Your task to perform on an android device: Search for the most popular books on Goodreads Image 0: 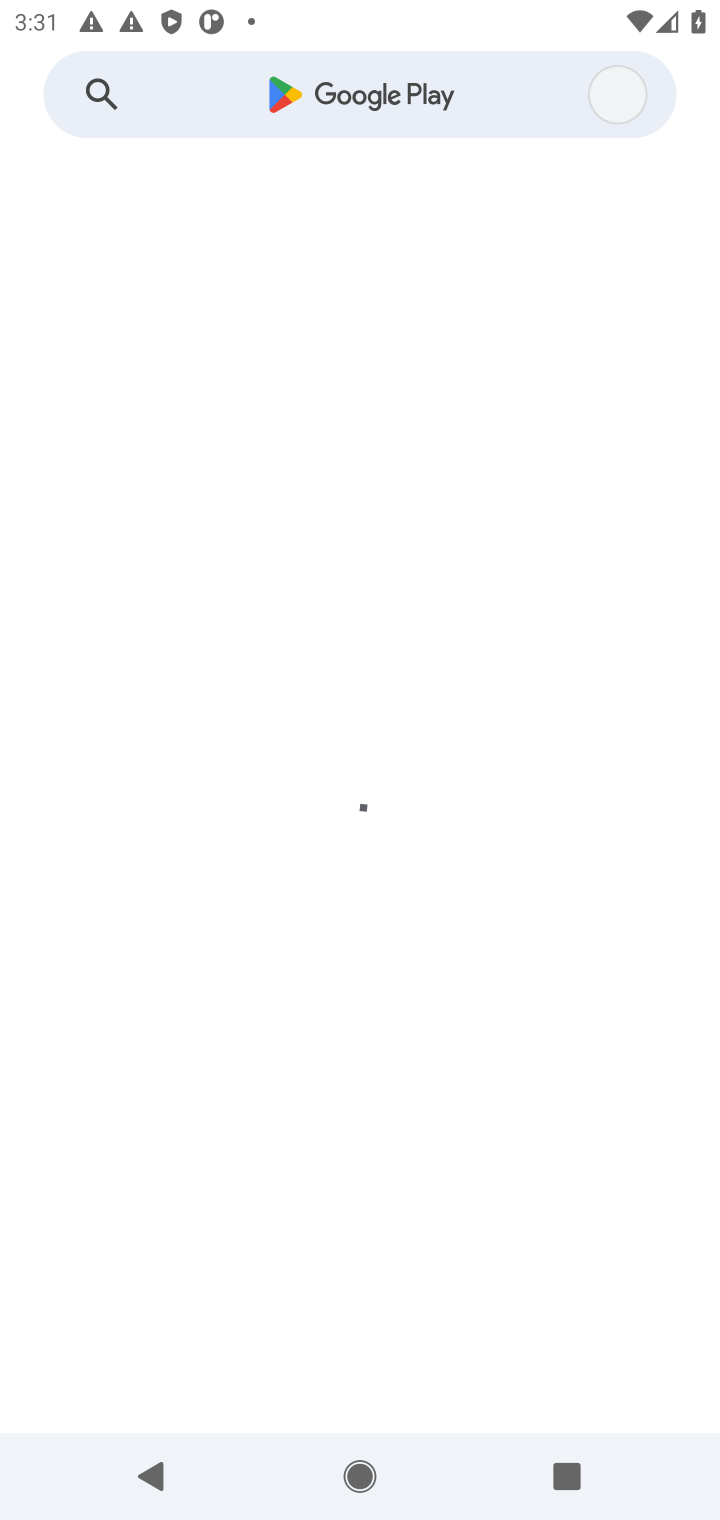
Step 0: press home button
Your task to perform on an android device: Search for the most popular books on Goodreads Image 1: 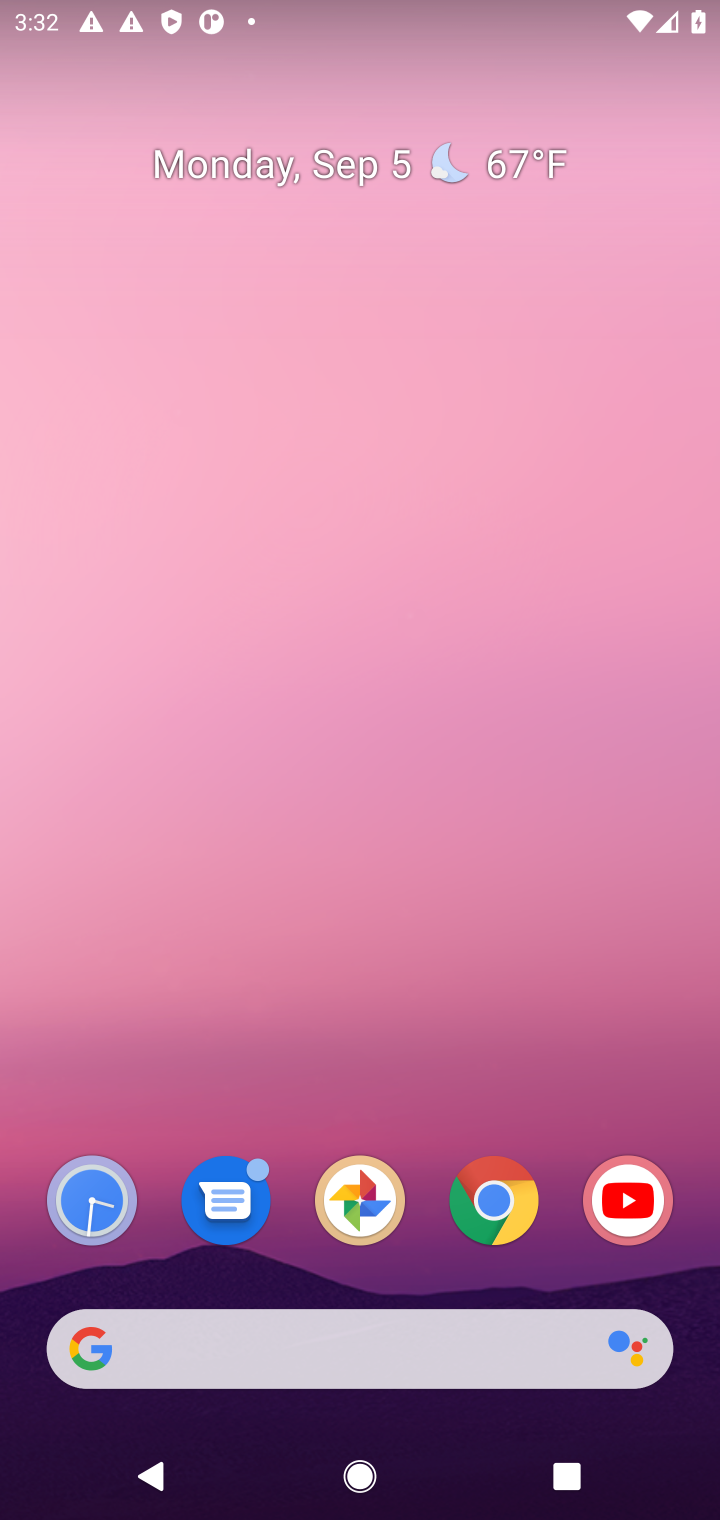
Step 1: click (281, 342)
Your task to perform on an android device: Search for the most popular books on Goodreads Image 2: 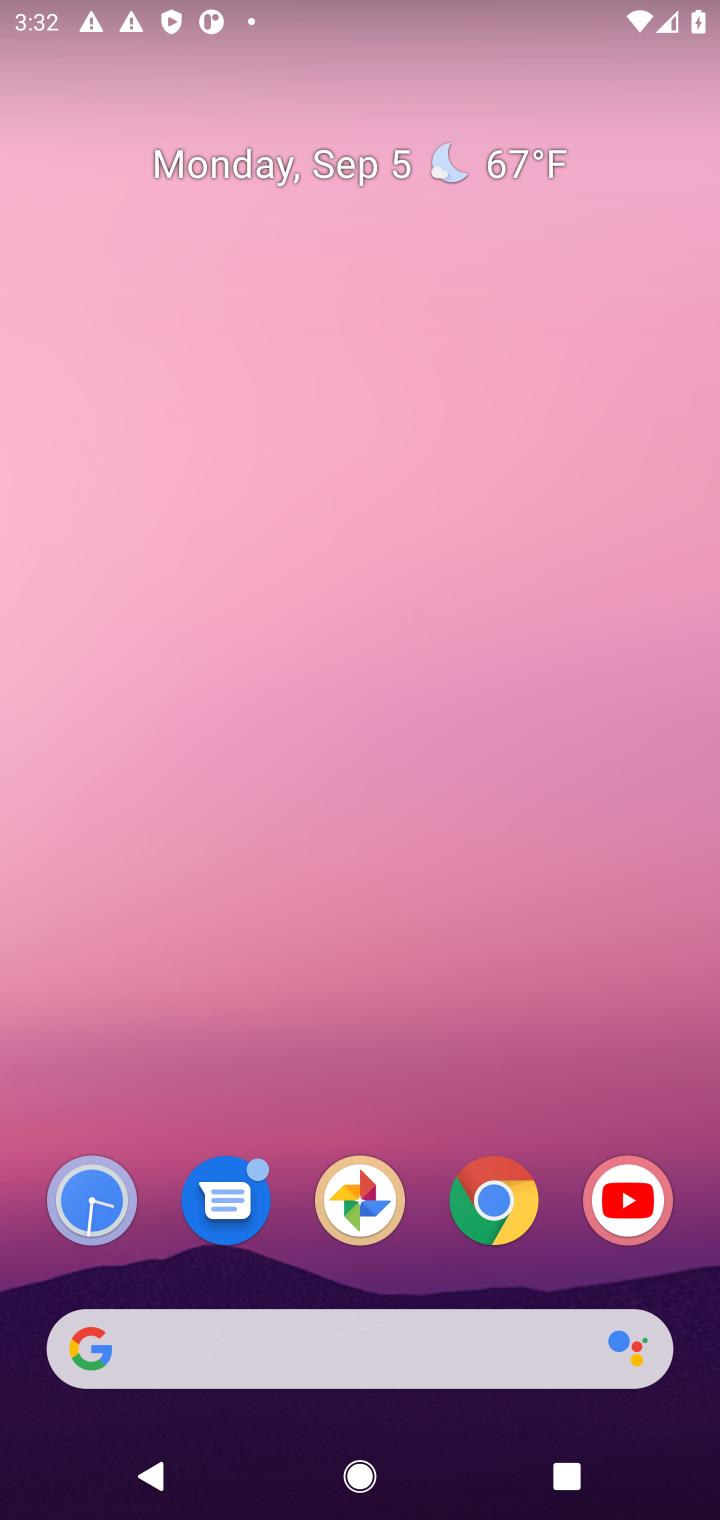
Step 2: click (493, 1192)
Your task to perform on an android device: Search for the most popular books on Goodreads Image 3: 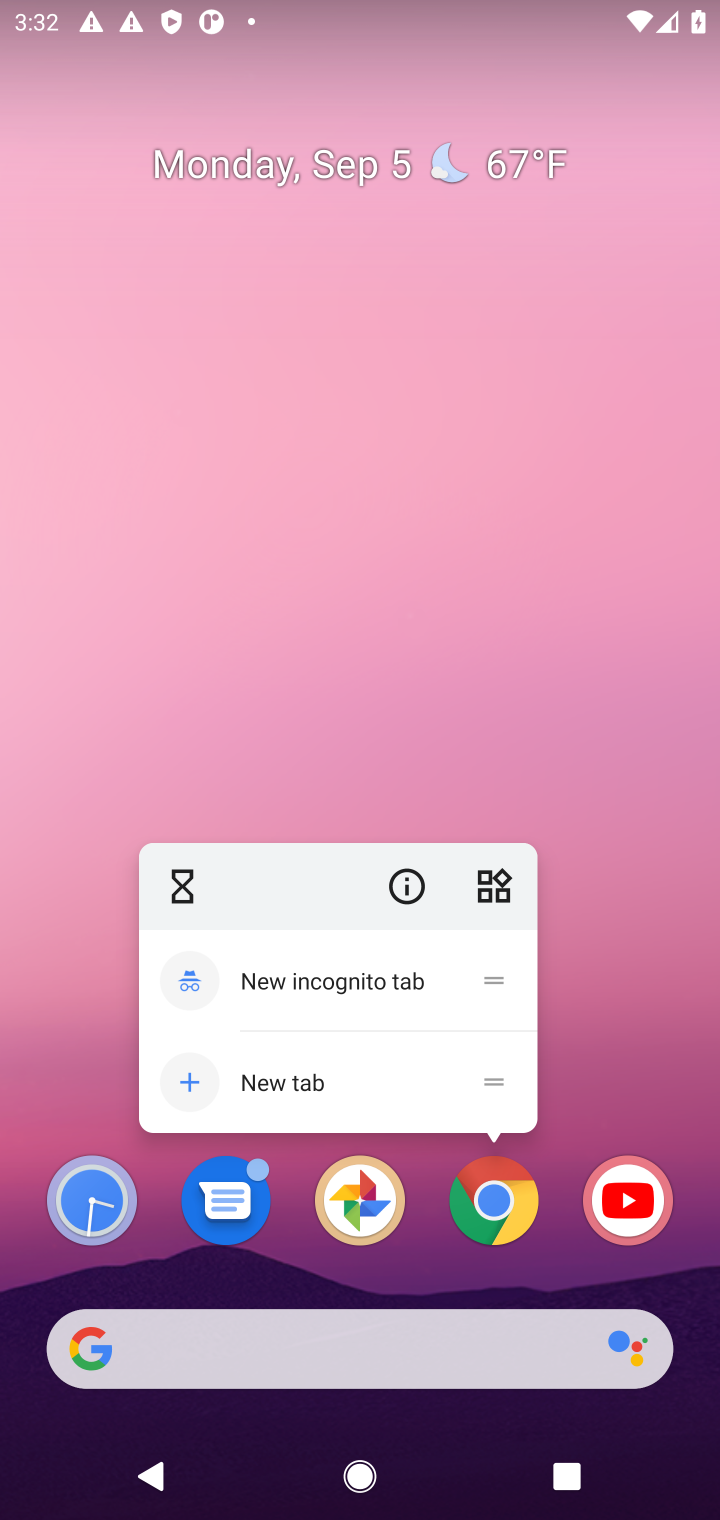
Step 3: click (480, 1197)
Your task to perform on an android device: Search for the most popular books on Goodreads Image 4: 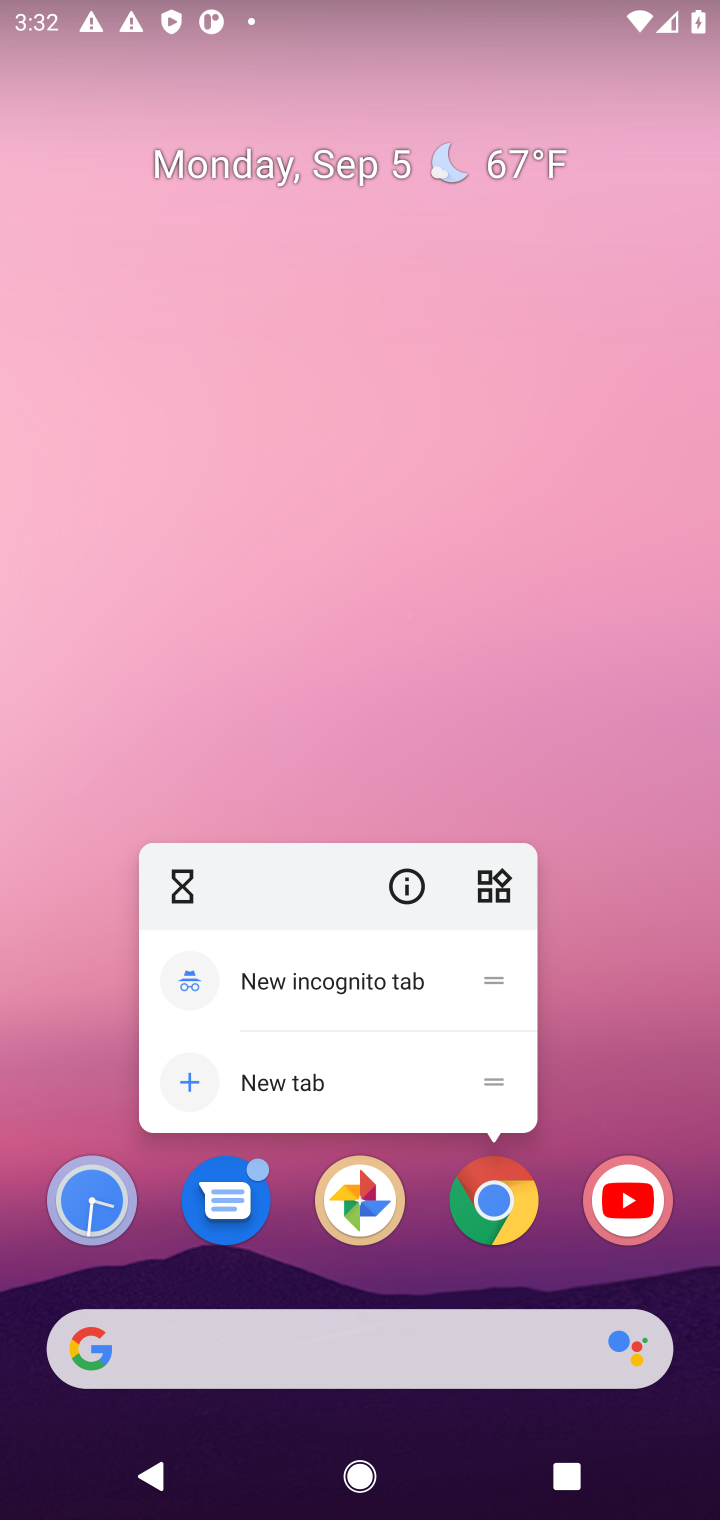
Step 4: click (480, 1197)
Your task to perform on an android device: Search for the most popular books on Goodreads Image 5: 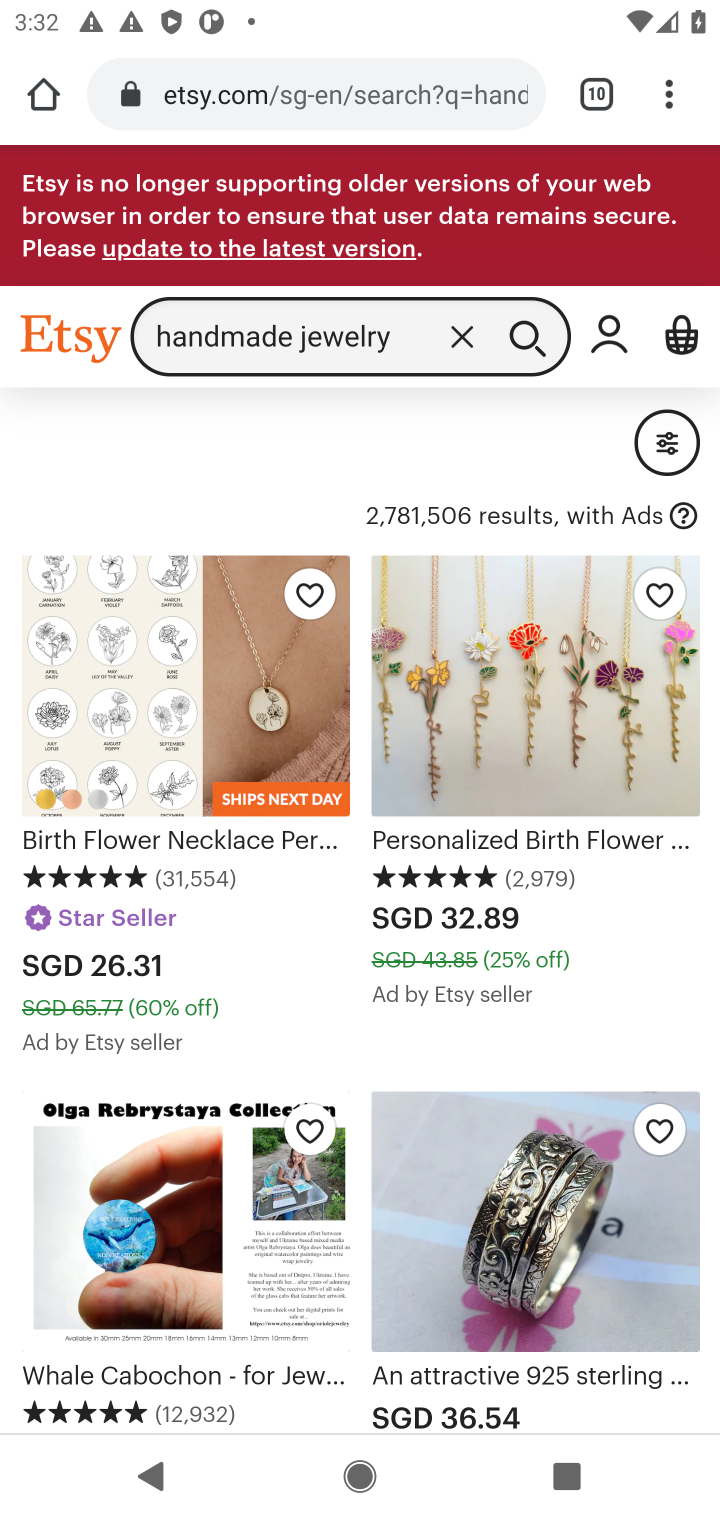
Step 5: click (45, 87)
Your task to perform on an android device: Search for the most popular books on Goodreads Image 6: 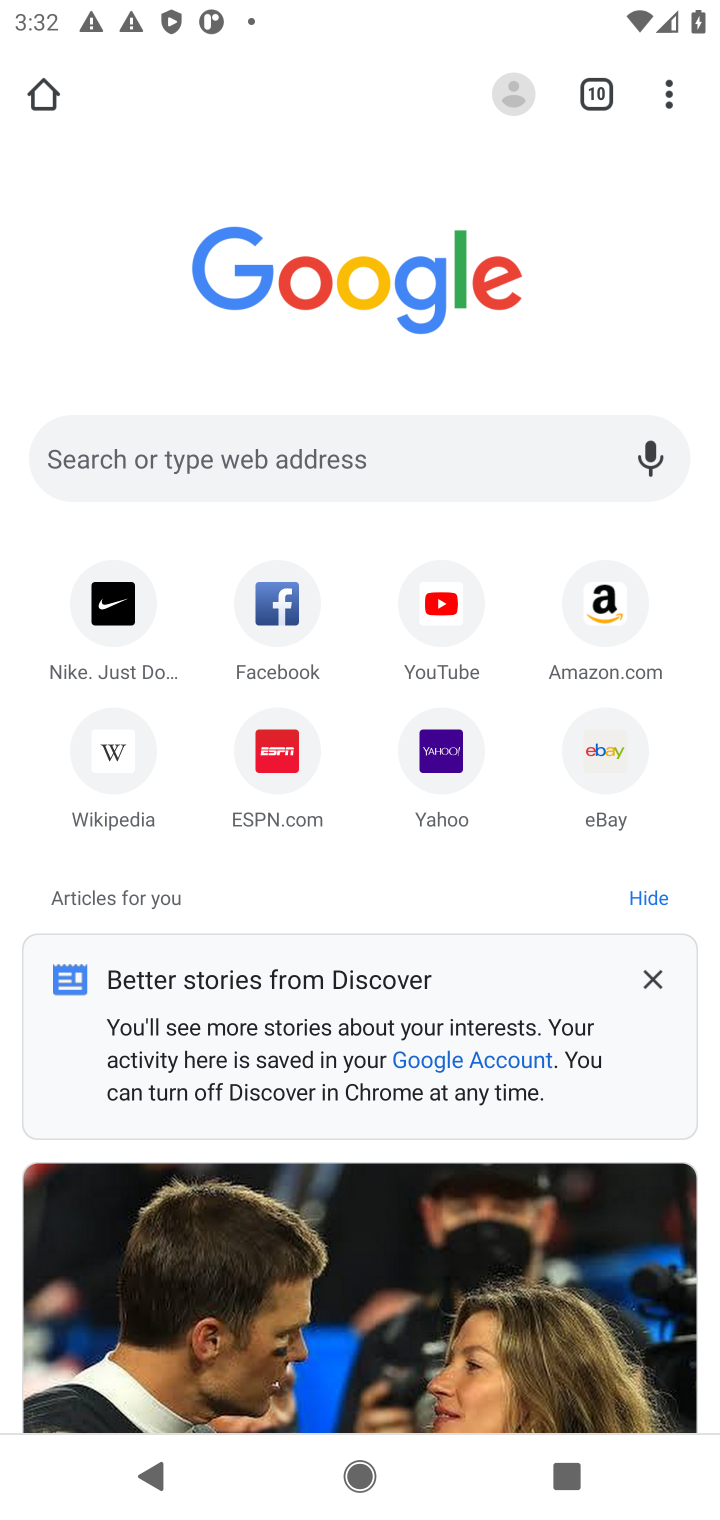
Step 6: click (159, 443)
Your task to perform on an android device: Search for the most popular books on Goodreads Image 7: 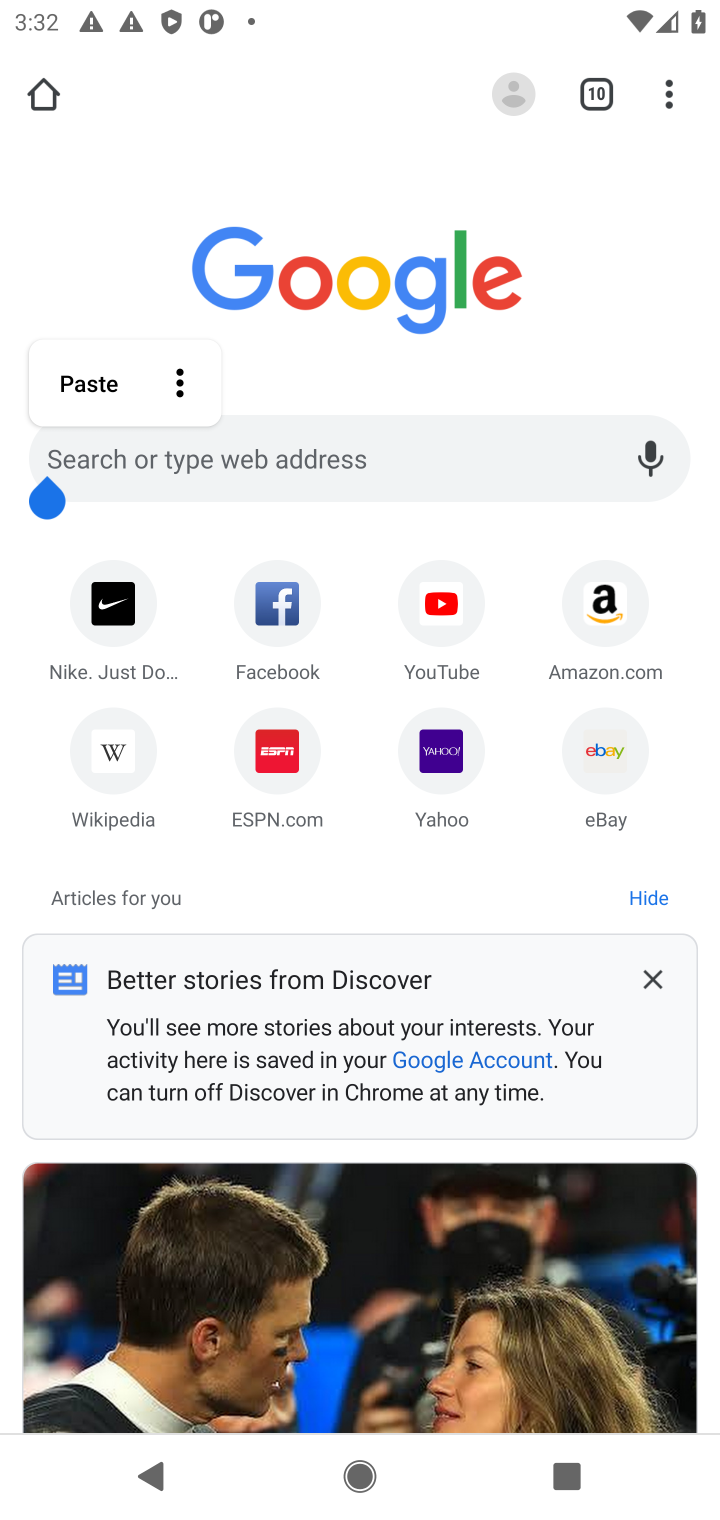
Step 7: click (267, 458)
Your task to perform on an android device: Search for the most popular books on Goodreads Image 8: 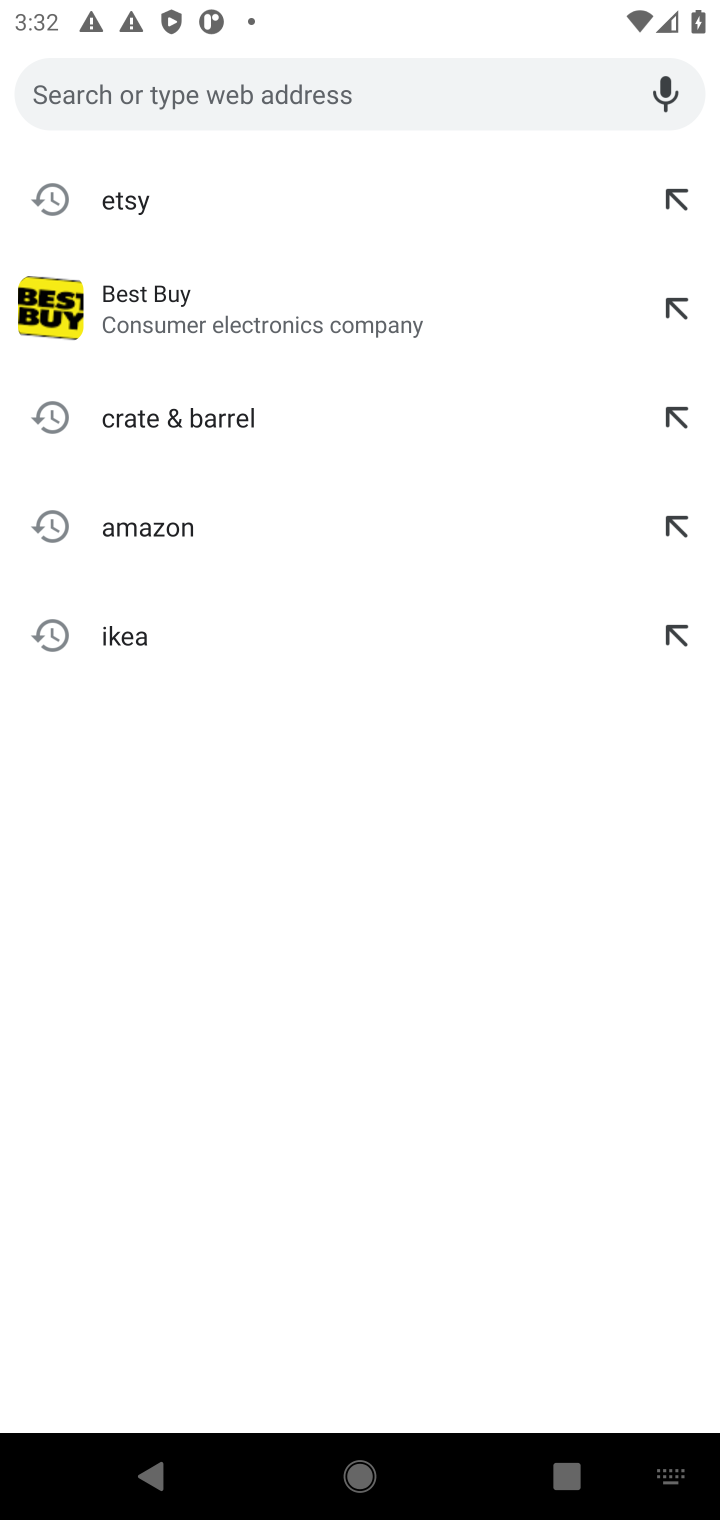
Step 8: type "goodreads"
Your task to perform on an android device: Search for the most popular books on Goodreads Image 9: 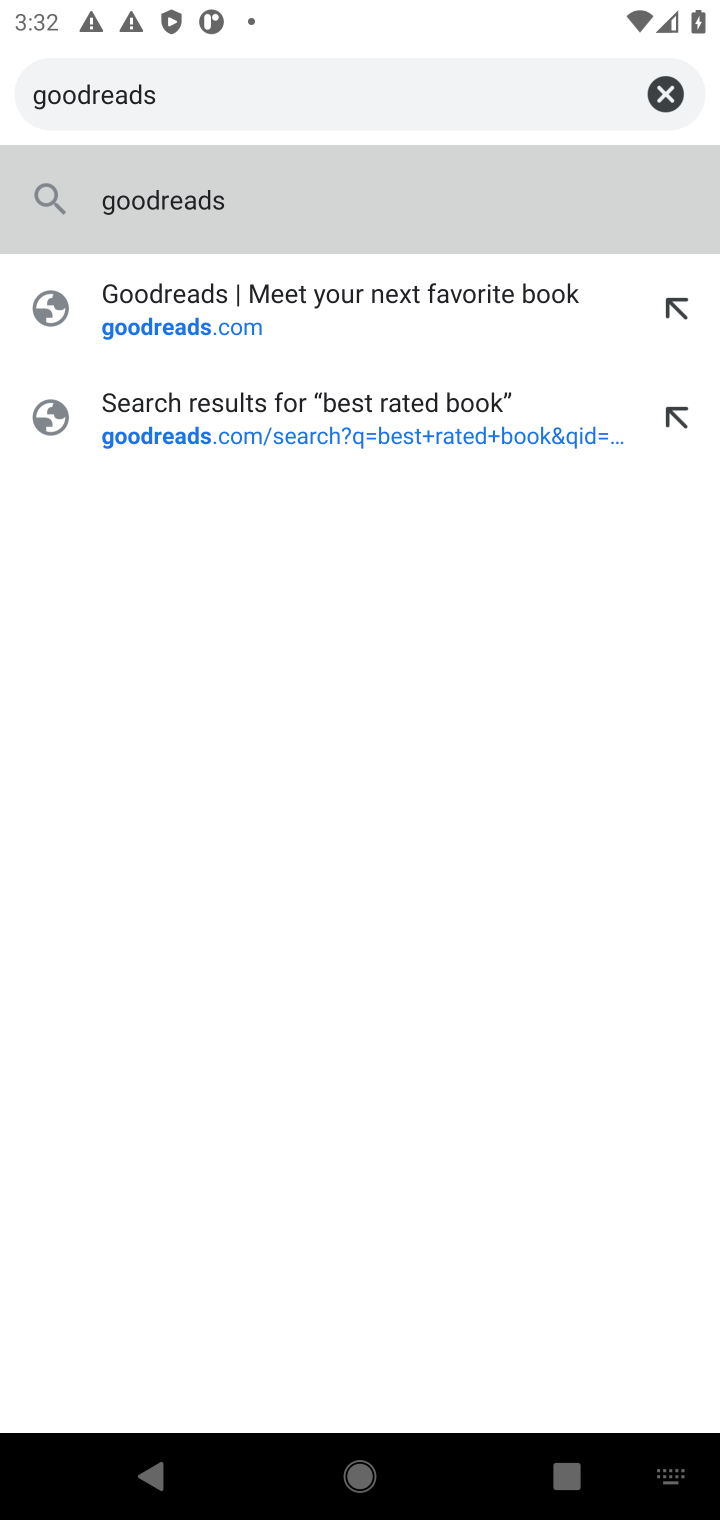
Step 9: click (113, 208)
Your task to perform on an android device: Search for the most popular books on Goodreads Image 10: 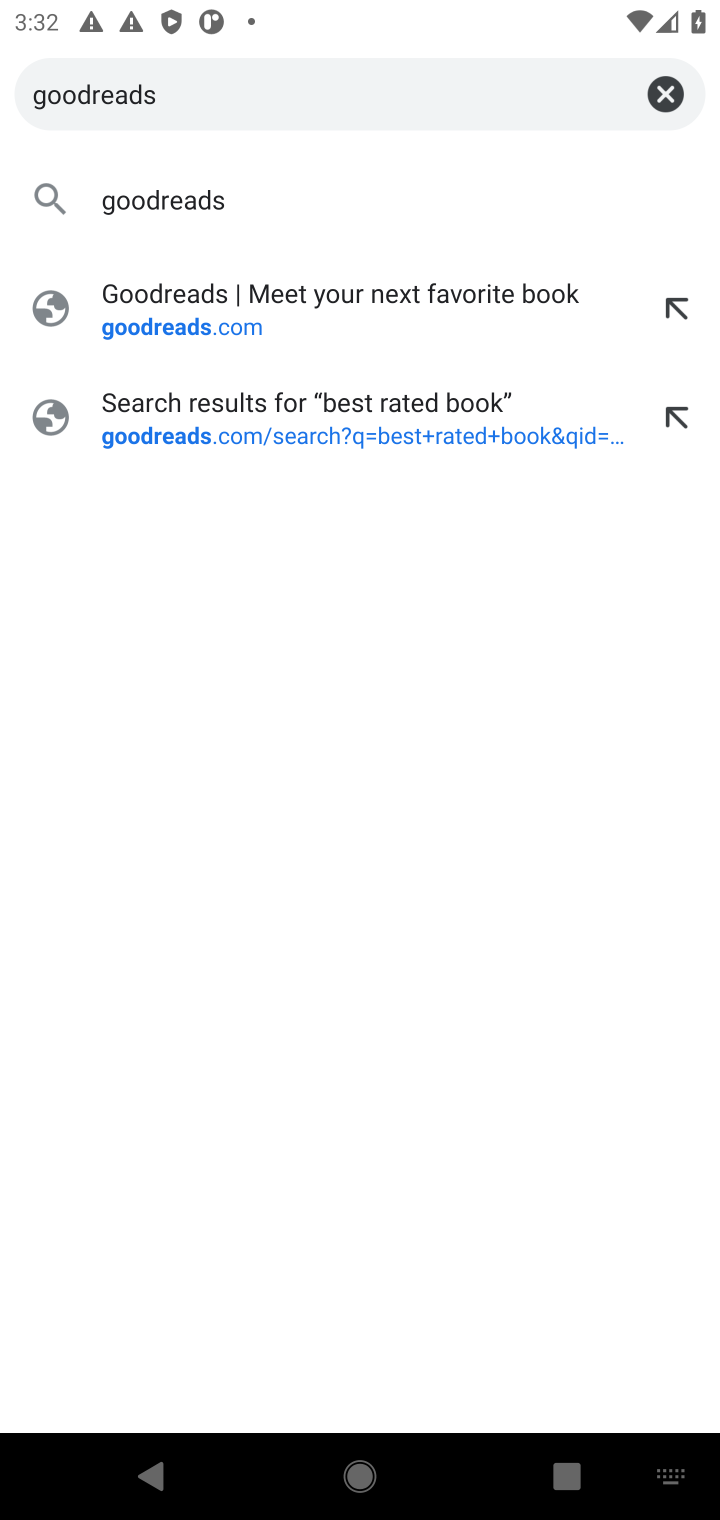
Step 10: click (206, 197)
Your task to perform on an android device: Search for the most popular books on Goodreads Image 11: 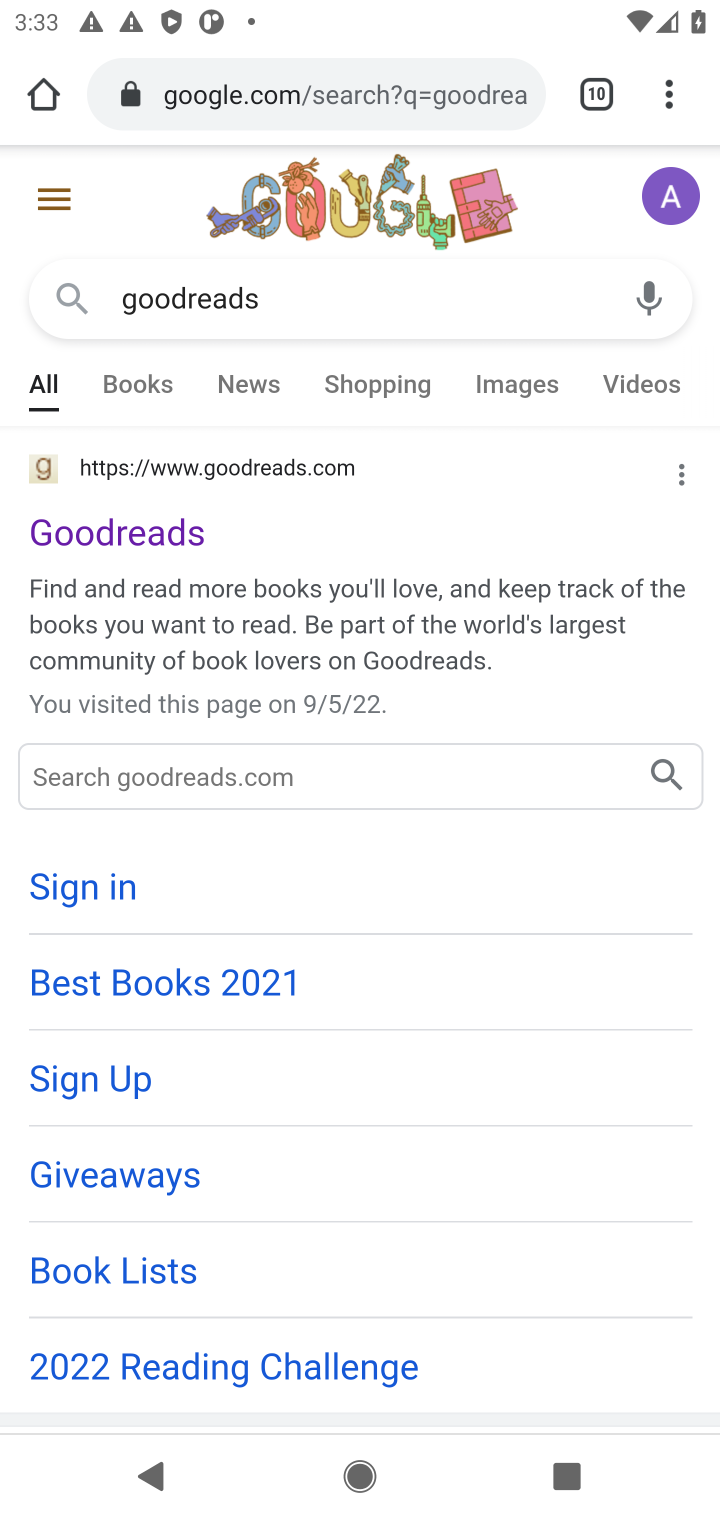
Step 11: click (154, 535)
Your task to perform on an android device: Search for the most popular books on Goodreads Image 12: 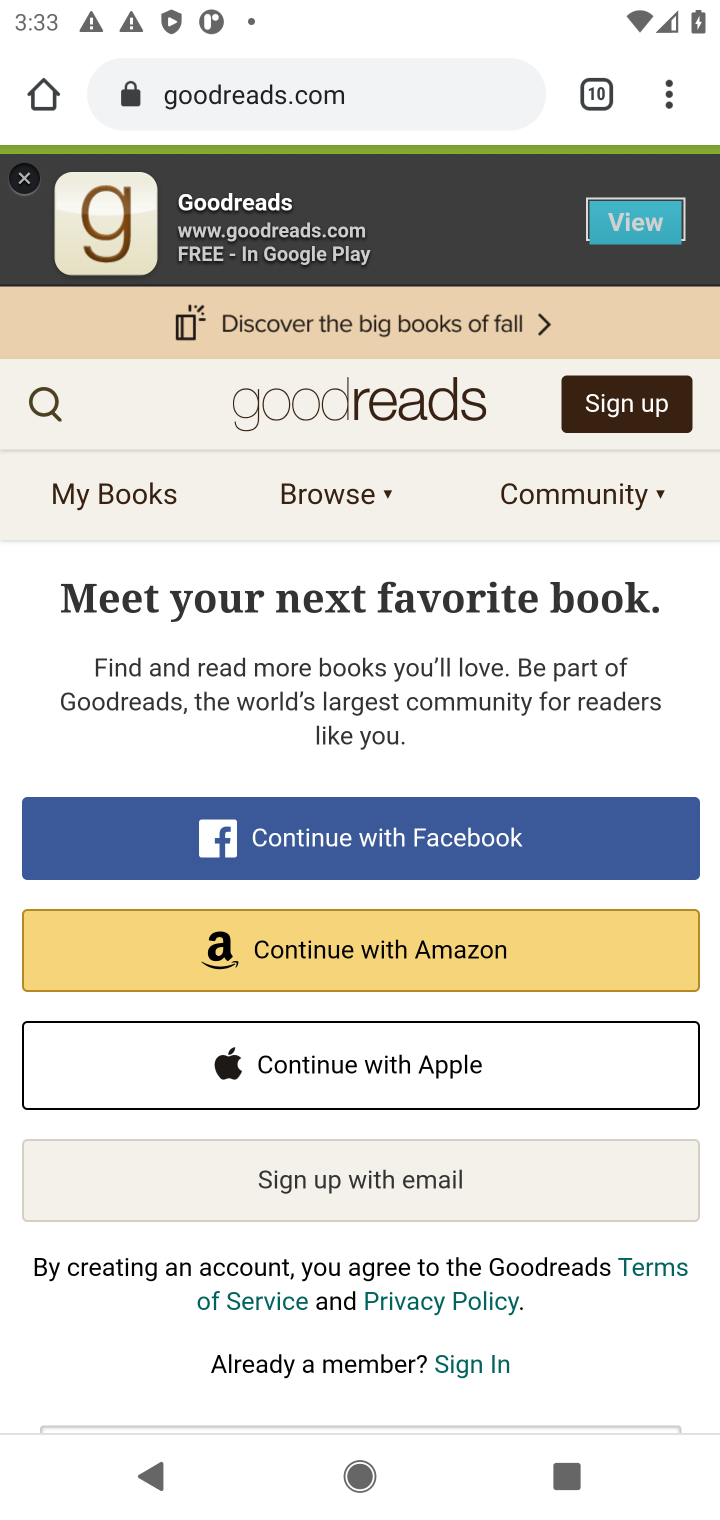
Step 12: click (39, 405)
Your task to perform on an android device: Search for the most popular books on Goodreads Image 13: 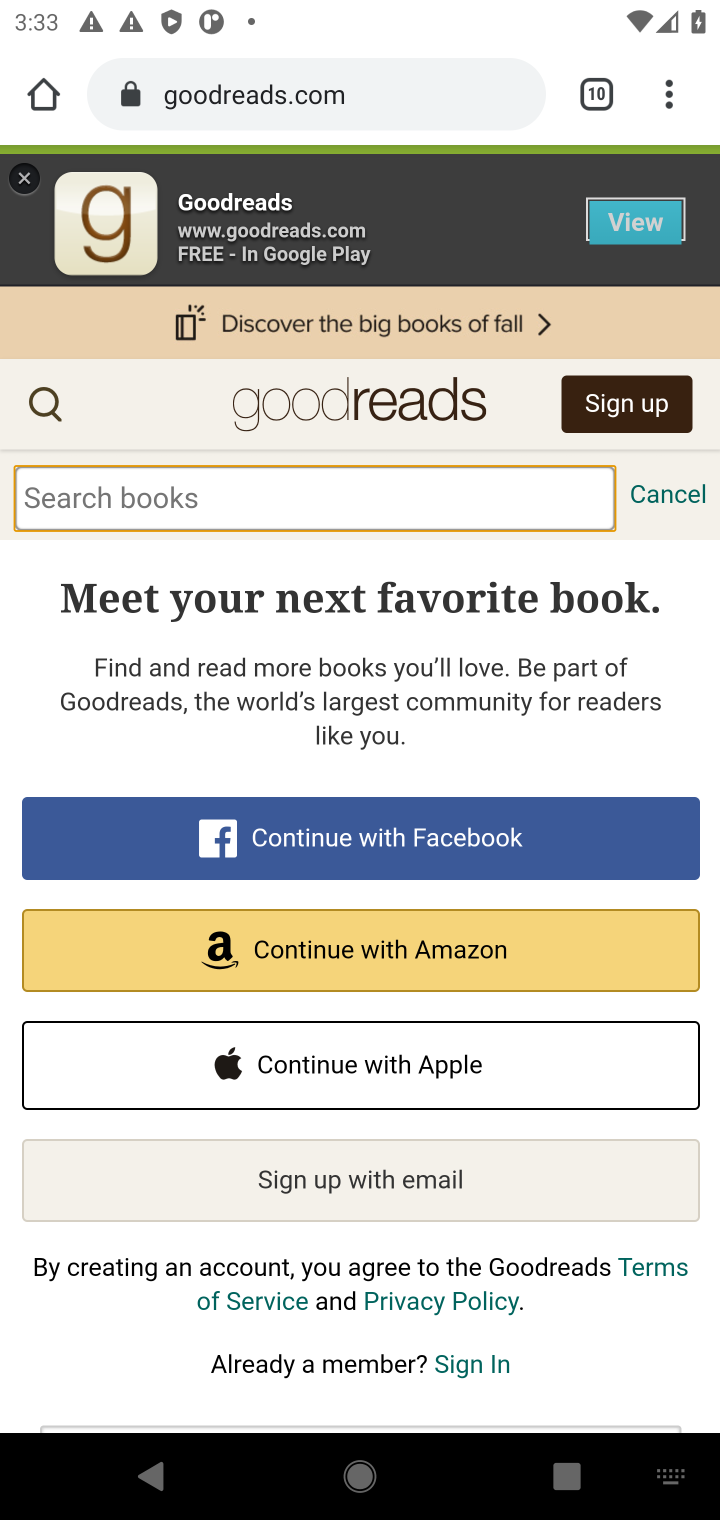
Step 13: type "most popular books"
Your task to perform on an android device: Search for the most popular books on Goodreads Image 14: 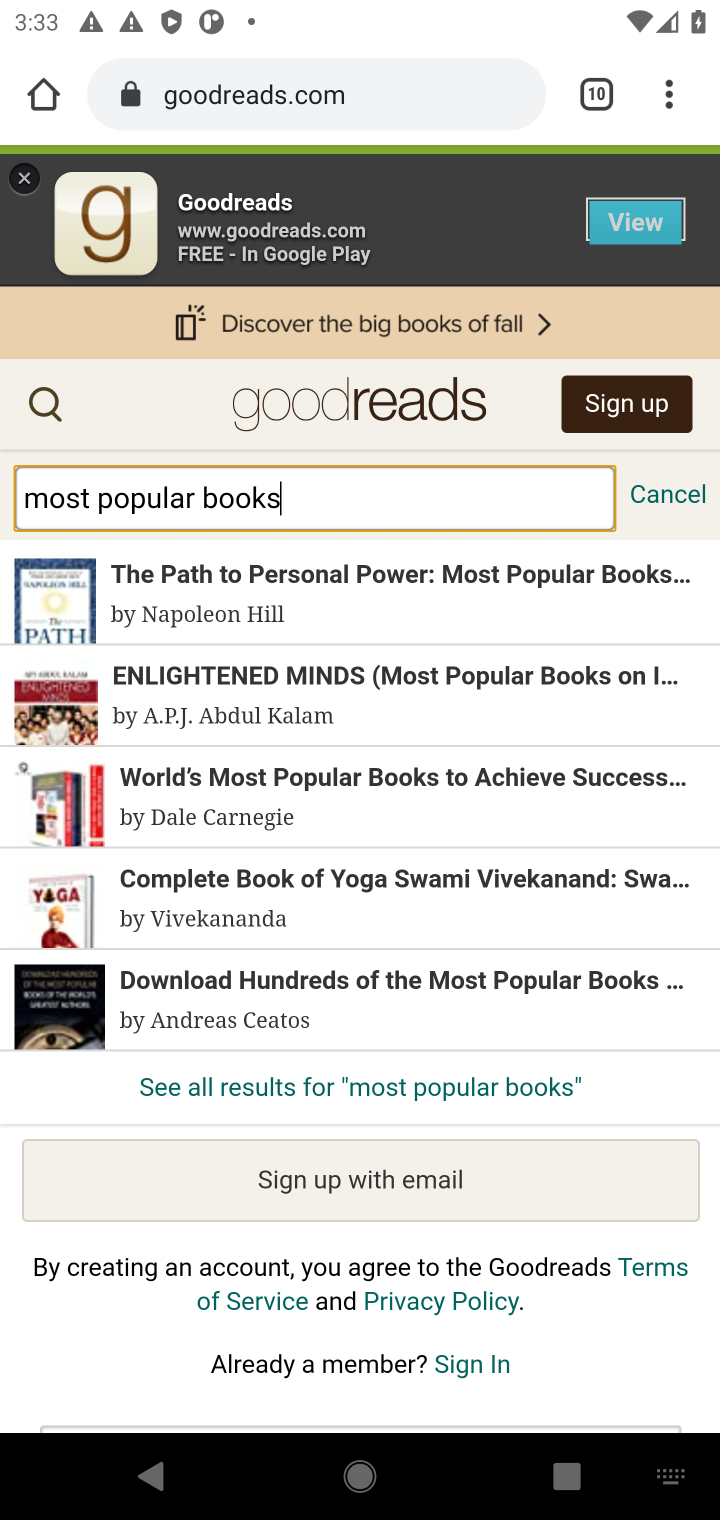
Step 14: click (377, 1079)
Your task to perform on an android device: Search for the most popular books on Goodreads Image 15: 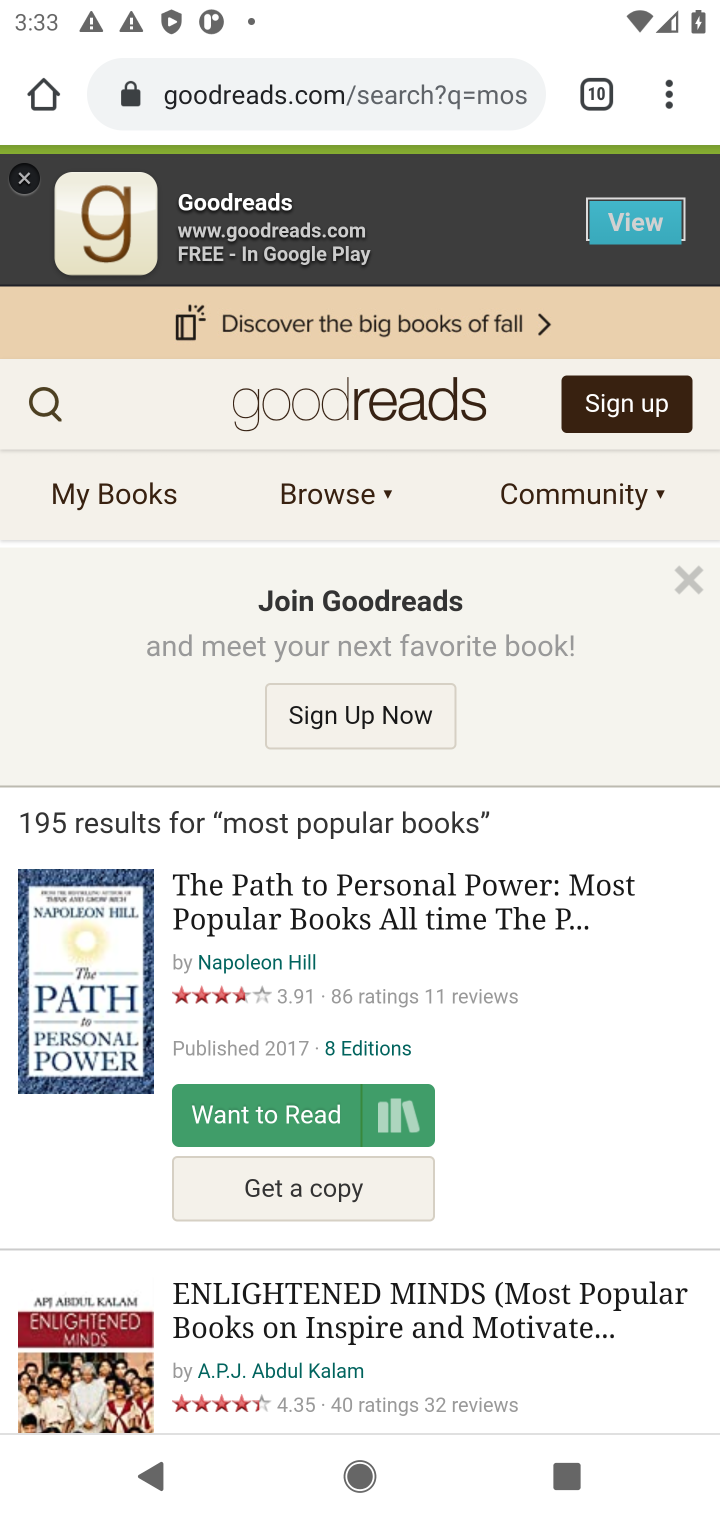
Step 15: task complete